Your task to perform on an android device: How much does a 3 bedroom apartment rent for in Washington DC? Image 0: 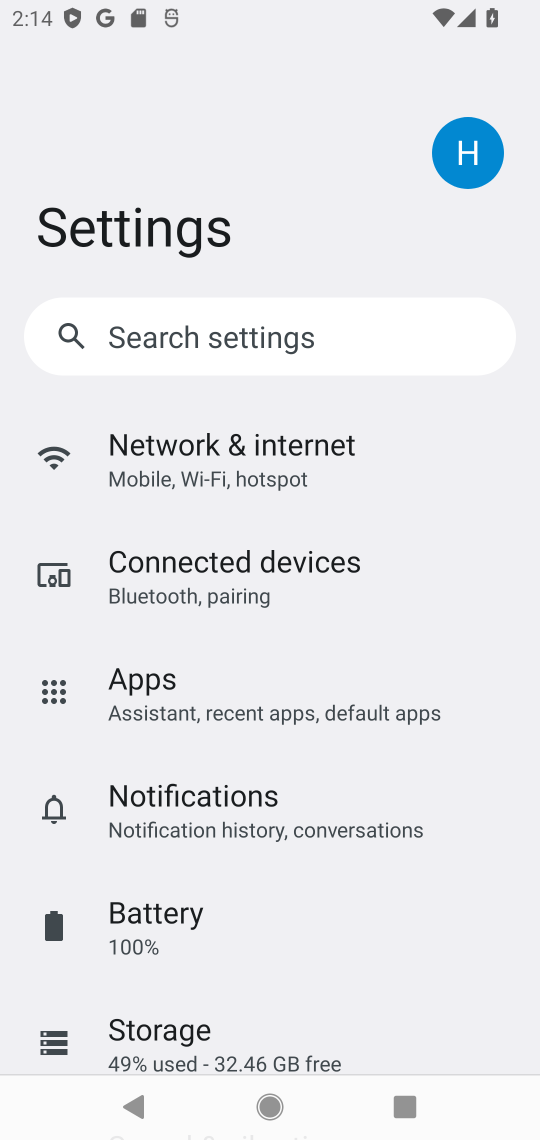
Step 0: press home button
Your task to perform on an android device: How much does a 3 bedroom apartment rent for in Washington DC? Image 1: 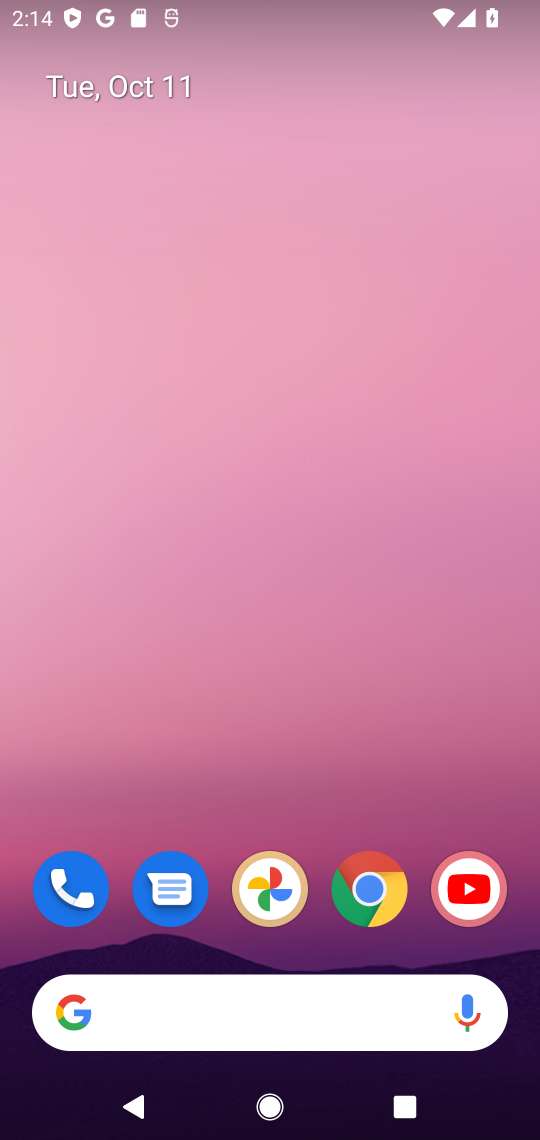
Step 1: drag from (232, 833) to (205, 136)
Your task to perform on an android device: How much does a 3 bedroom apartment rent for in Washington DC? Image 2: 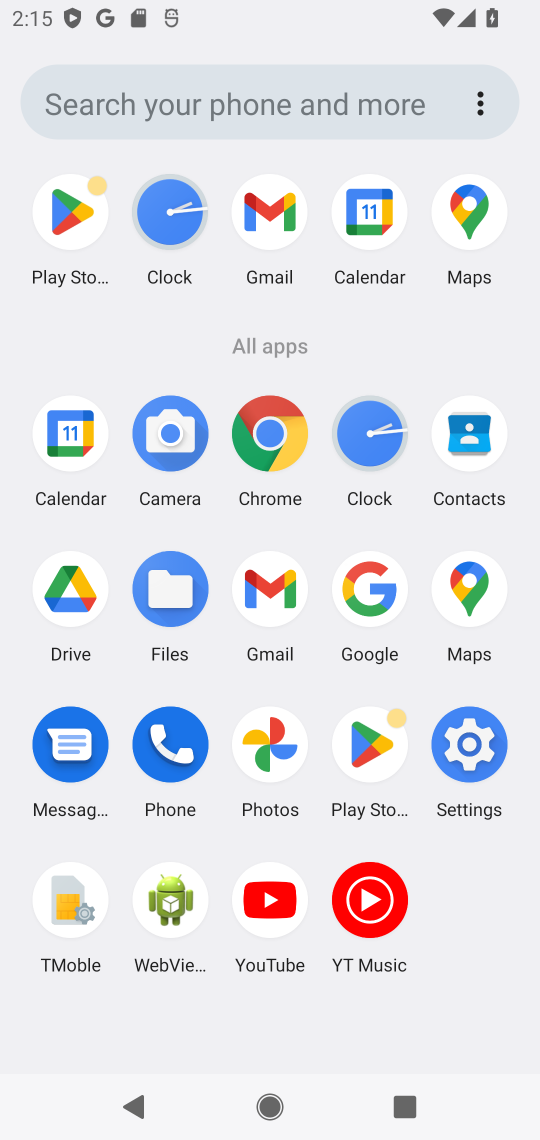
Step 2: click (360, 592)
Your task to perform on an android device: How much does a 3 bedroom apartment rent for in Washington DC? Image 3: 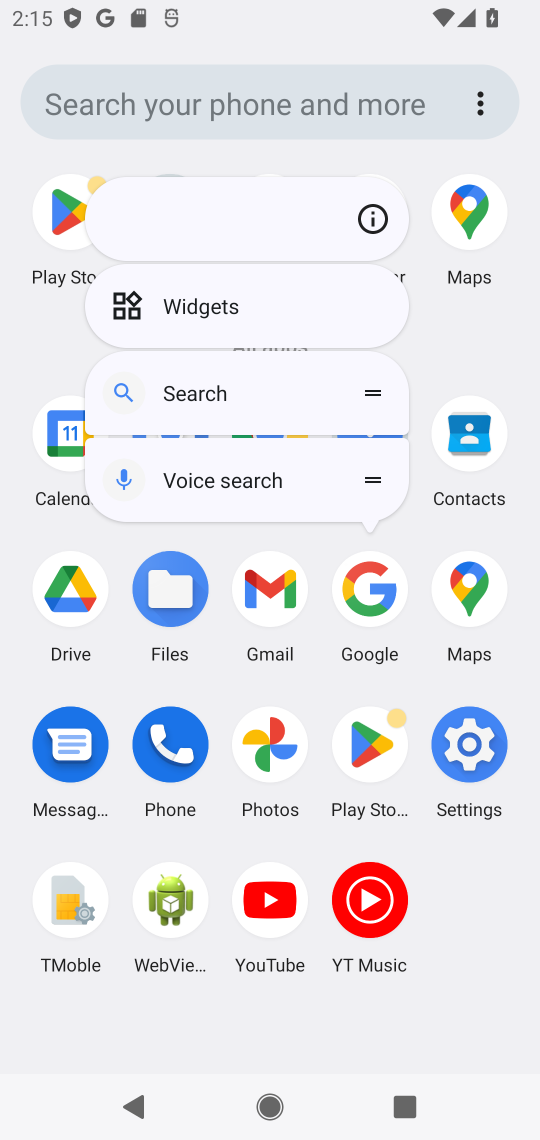
Step 3: click (356, 582)
Your task to perform on an android device: How much does a 3 bedroom apartment rent for in Washington DC? Image 4: 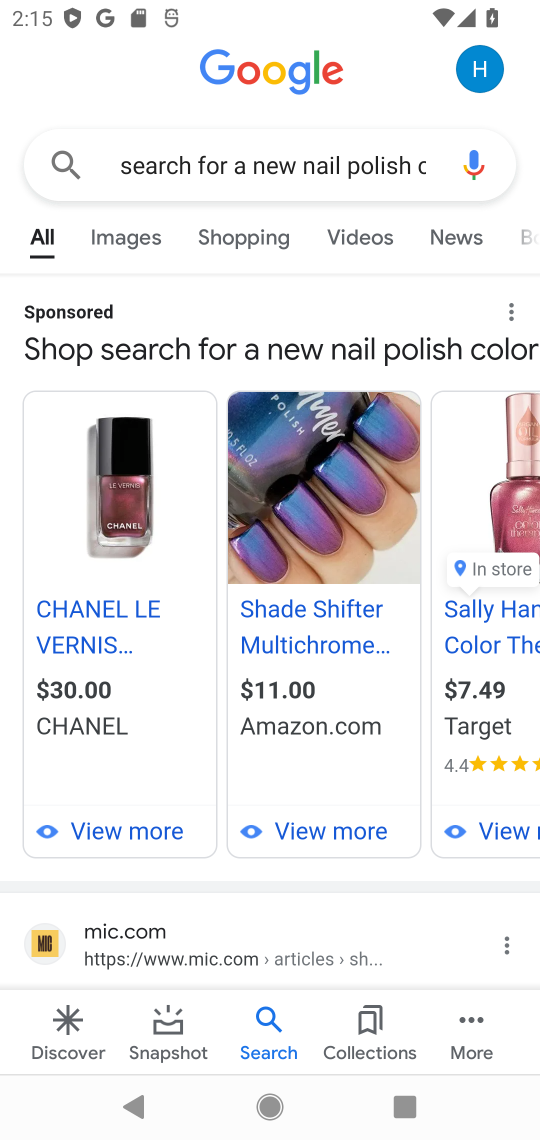
Step 4: click (224, 160)
Your task to perform on an android device: How much does a 3 bedroom apartment rent for in Washington DC? Image 5: 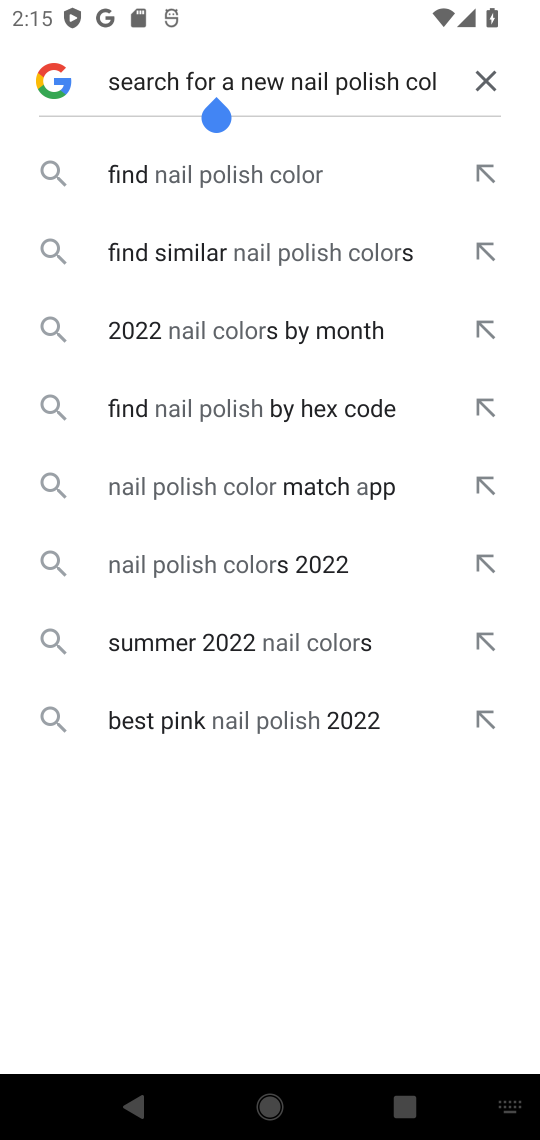
Step 5: click (482, 81)
Your task to perform on an android device: How much does a 3 bedroom apartment rent for in Washington DC? Image 6: 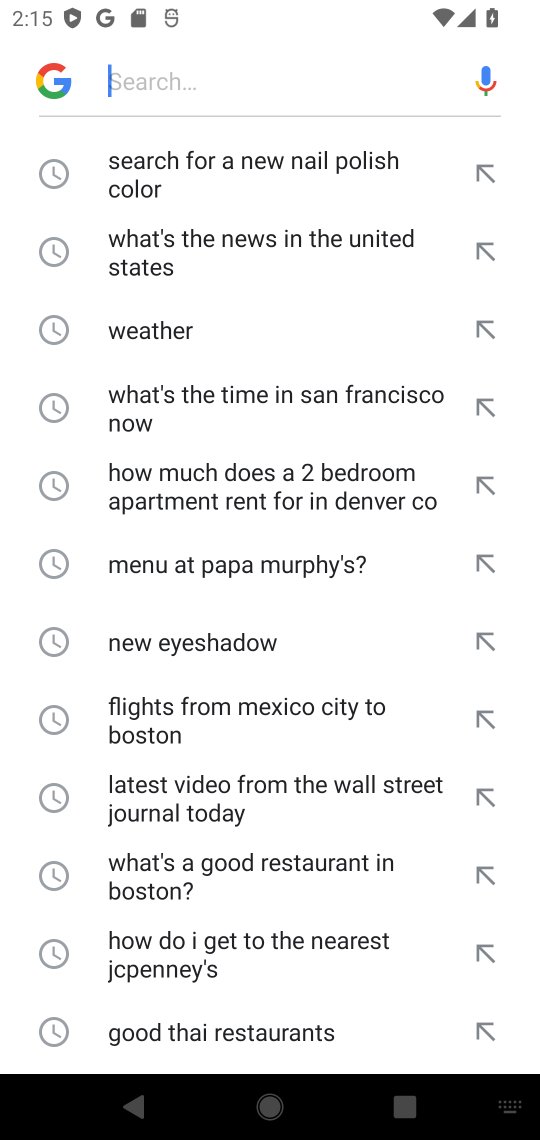
Step 6: click (189, 54)
Your task to perform on an android device: How much does a 3 bedroom apartment rent for in Washington DC? Image 7: 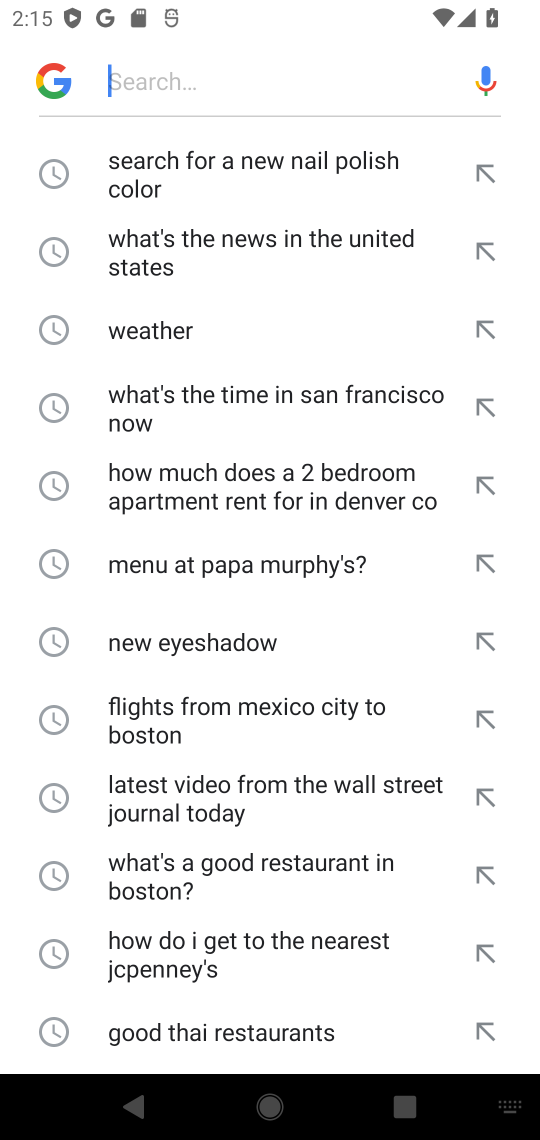
Step 7: type "How much does a 3 bedroom apartment rent for in Washington DC? "
Your task to perform on an android device: How much does a 3 bedroom apartment rent for in Washington DC? Image 8: 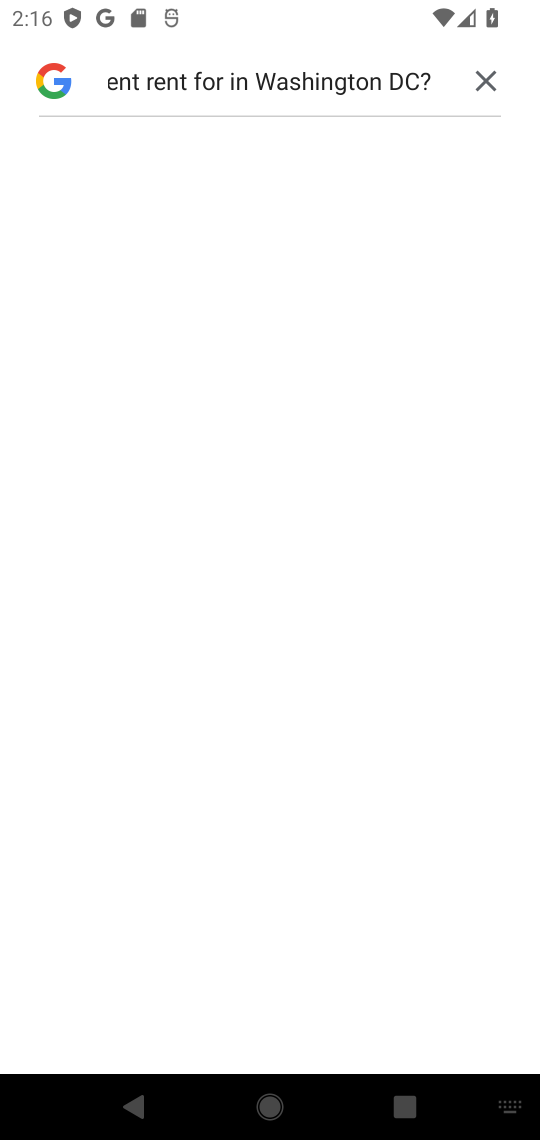
Step 8: click (489, 76)
Your task to perform on an android device: How much does a 3 bedroom apartment rent for in Washington DC? Image 9: 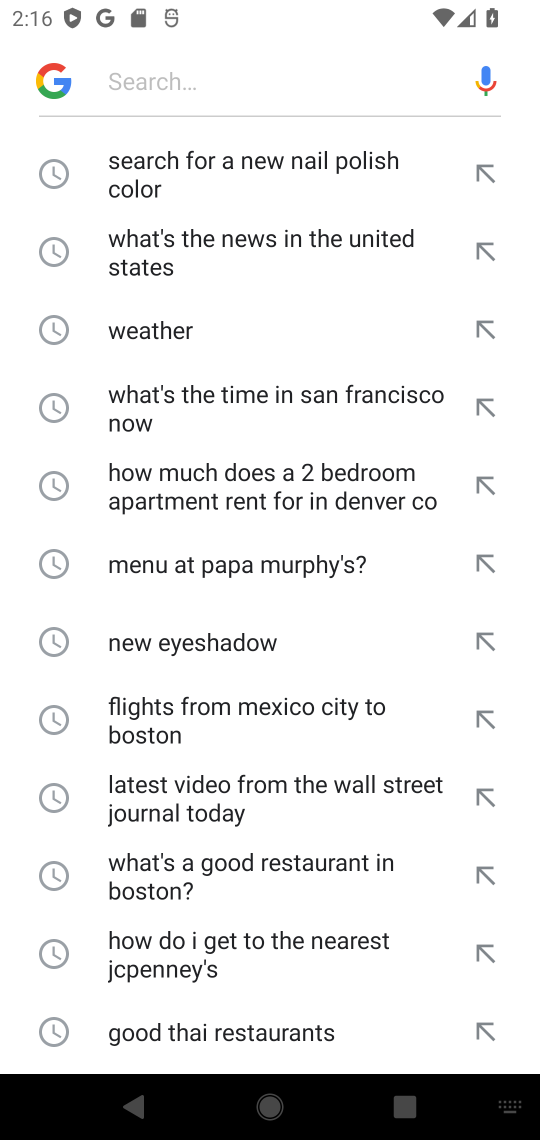
Step 9: click (256, 80)
Your task to perform on an android device: How much does a 3 bedroom apartment rent for in Washington DC? Image 10: 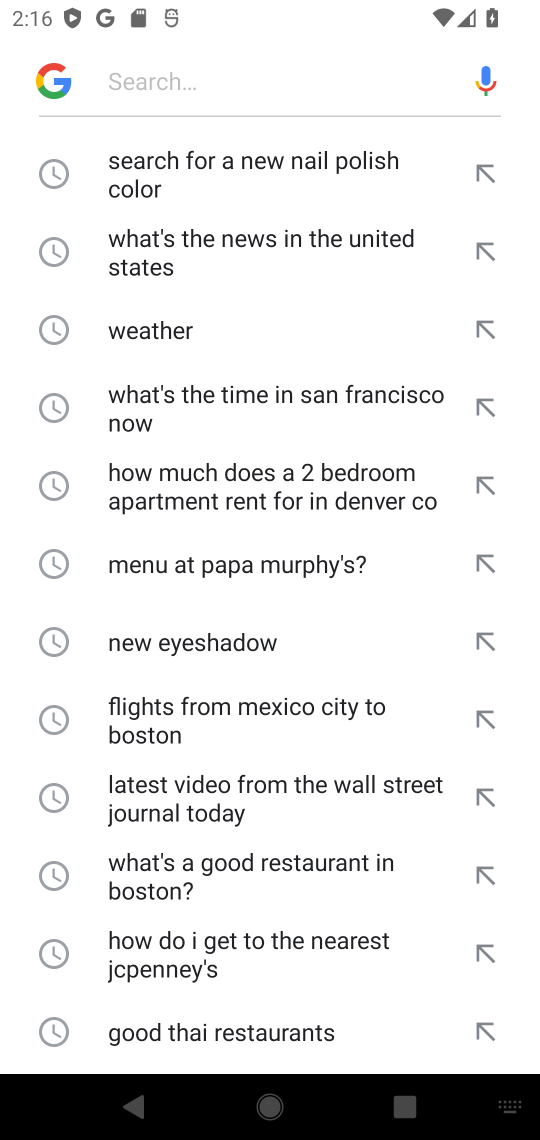
Step 10: type "How much does a 3 bedroom apartment rent for in Washington DC "
Your task to perform on an android device: How much does a 3 bedroom apartment rent for in Washington DC? Image 11: 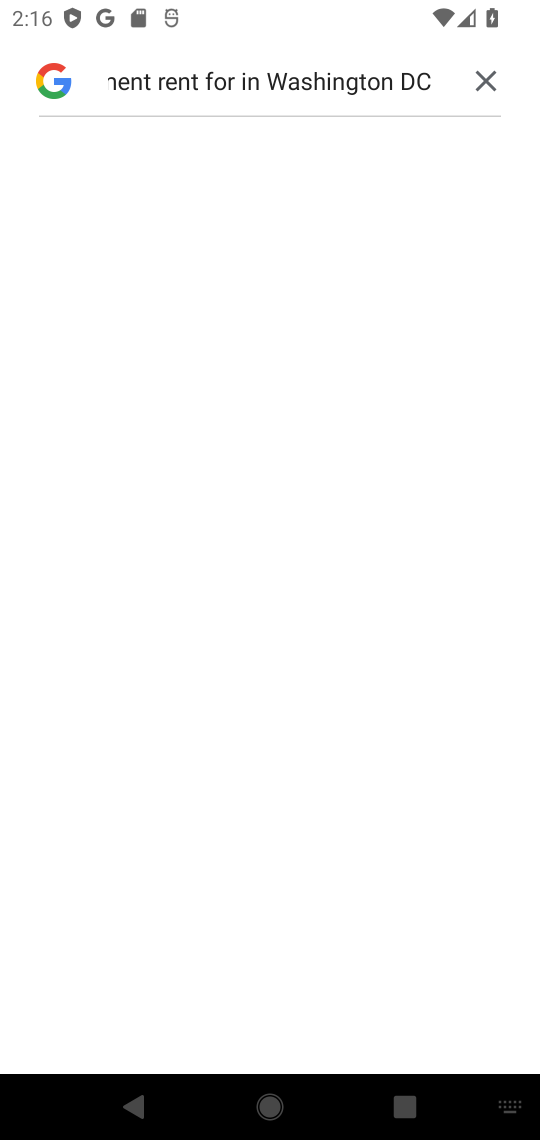
Step 11: click (276, 72)
Your task to perform on an android device: How much does a 3 bedroom apartment rent for in Washington DC? Image 12: 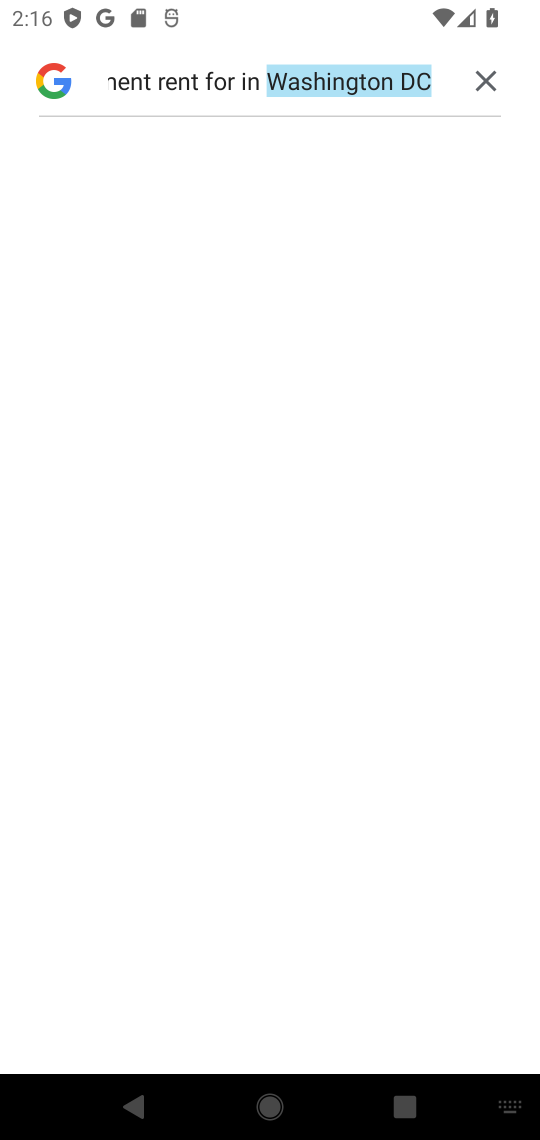
Step 12: click (278, 222)
Your task to perform on an android device: How much does a 3 bedroom apartment rent for in Washington DC? Image 13: 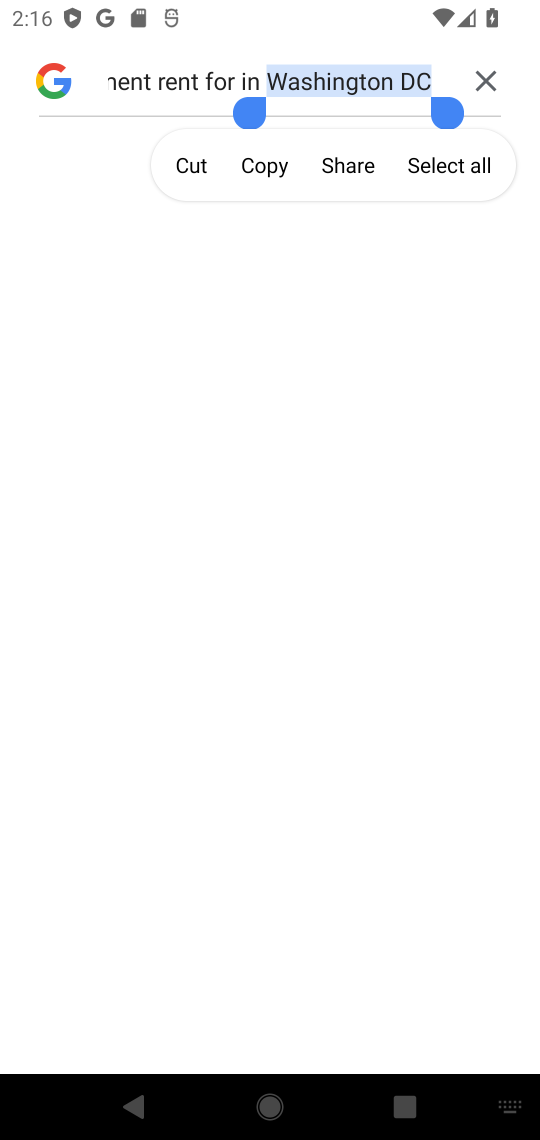
Step 13: click (278, 222)
Your task to perform on an android device: How much does a 3 bedroom apartment rent for in Washington DC? Image 14: 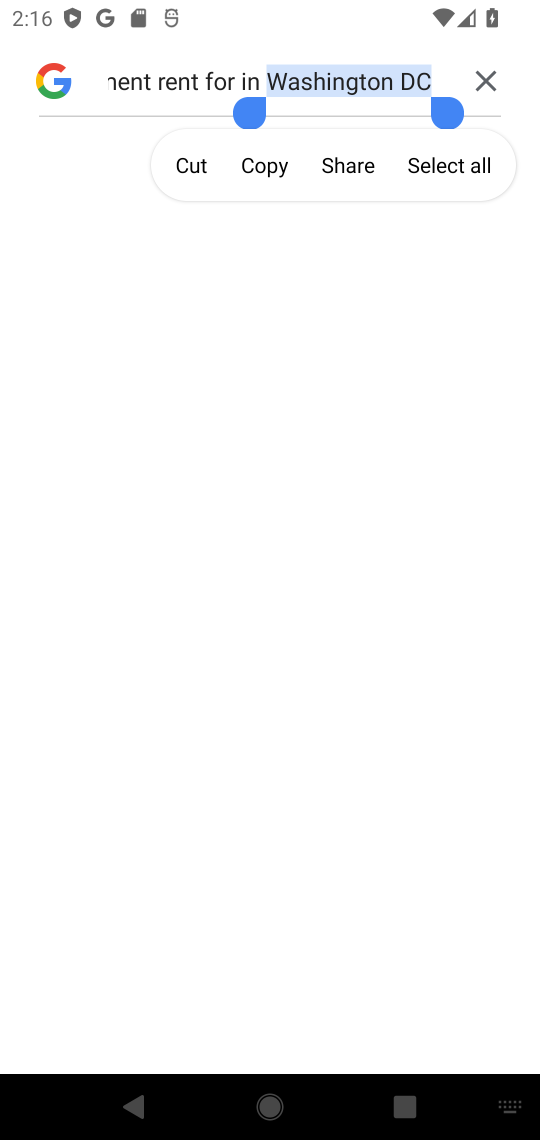
Step 14: click (310, 264)
Your task to perform on an android device: How much does a 3 bedroom apartment rent for in Washington DC? Image 15: 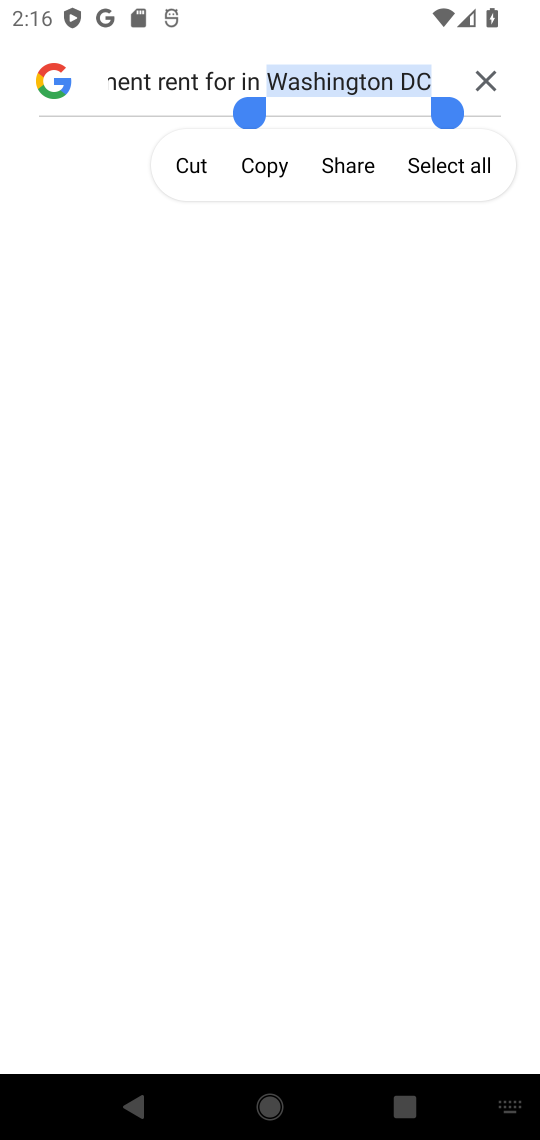
Step 15: click (322, 243)
Your task to perform on an android device: How much does a 3 bedroom apartment rent for in Washington DC? Image 16: 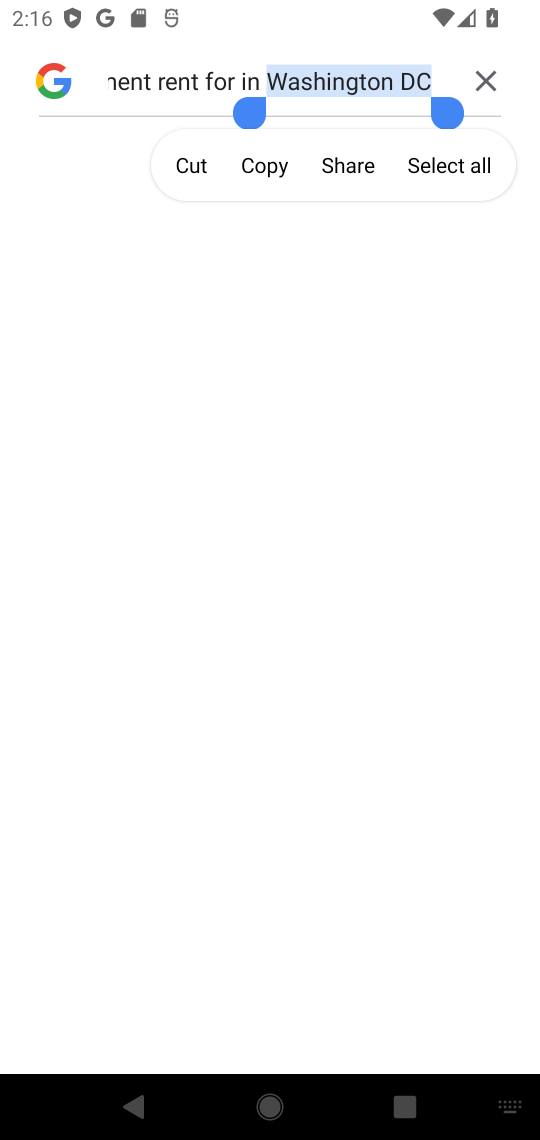
Step 16: click (214, 239)
Your task to perform on an android device: How much does a 3 bedroom apartment rent for in Washington DC? Image 17: 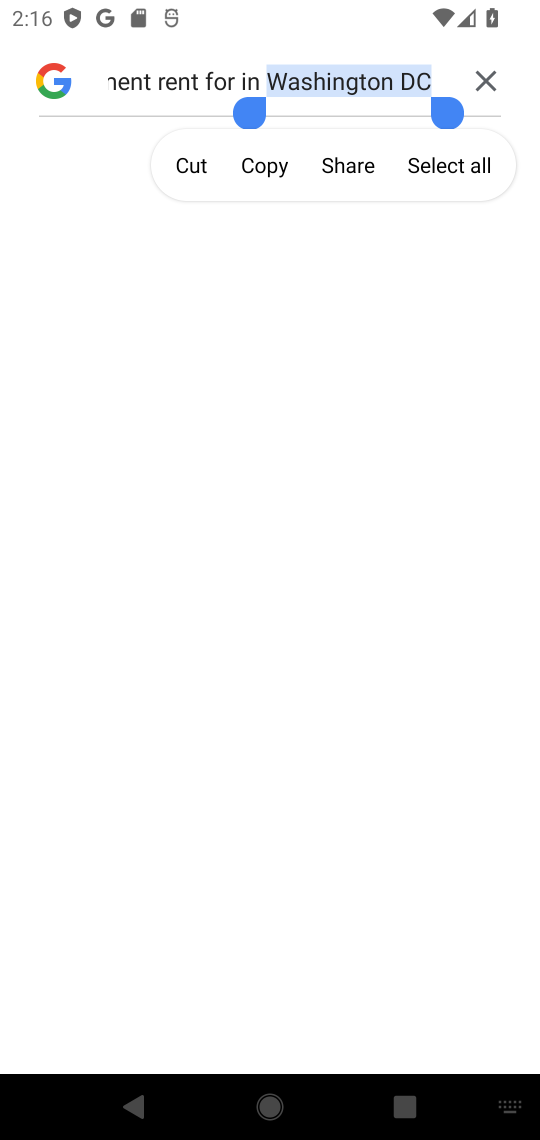
Step 17: click (214, 239)
Your task to perform on an android device: How much does a 3 bedroom apartment rent for in Washington DC? Image 18: 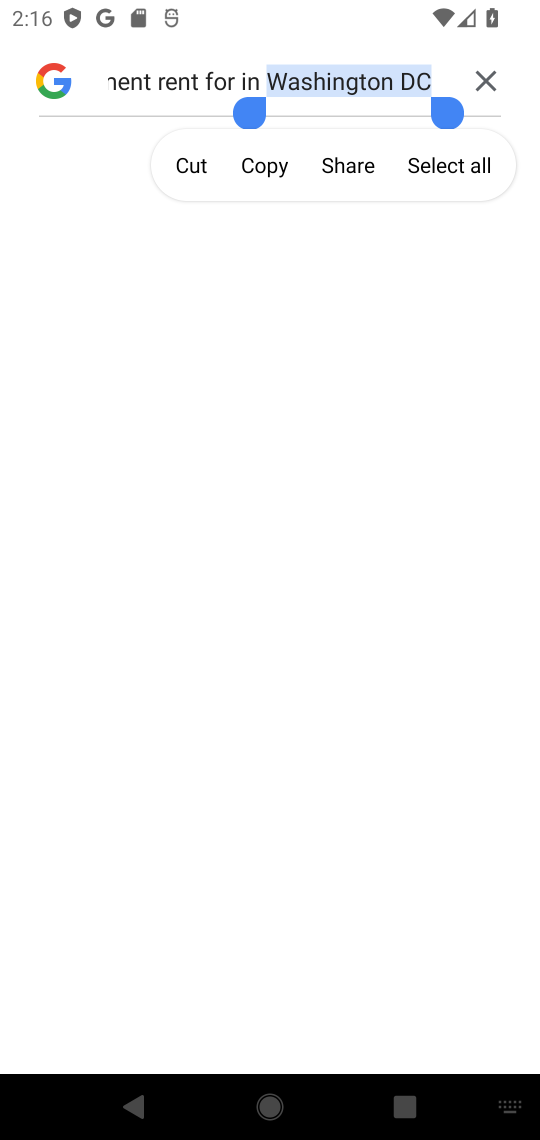
Step 18: click (204, 191)
Your task to perform on an android device: How much does a 3 bedroom apartment rent for in Washington DC? Image 19: 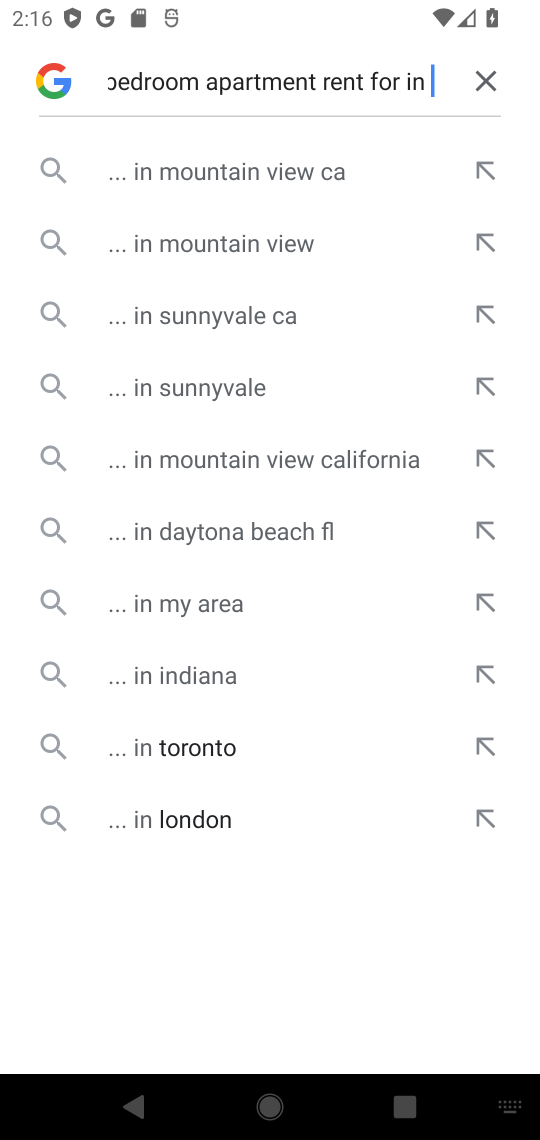
Step 19: click (312, 179)
Your task to perform on an android device: How much does a 3 bedroom apartment rent for in Washington DC? Image 20: 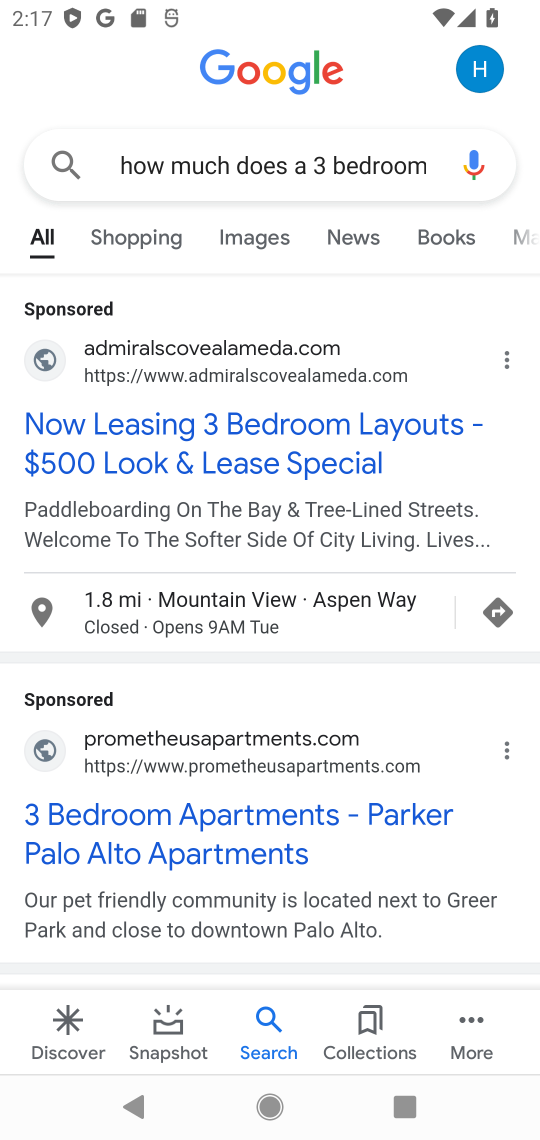
Step 20: click (153, 425)
Your task to perform on an android device: How much does a 3 bedroom apartment rent for in Washington DC? Image 21: 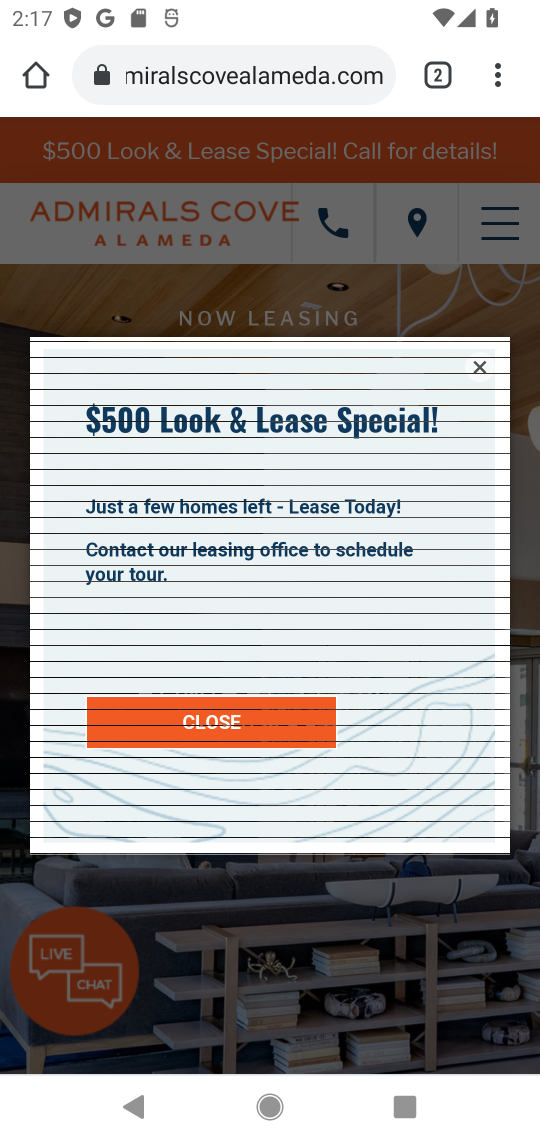
Step 21: click (479, 363)
Your task to perform on an android device: How much does a 3 bedroom apartment rent for in Washington DC? Image 22: 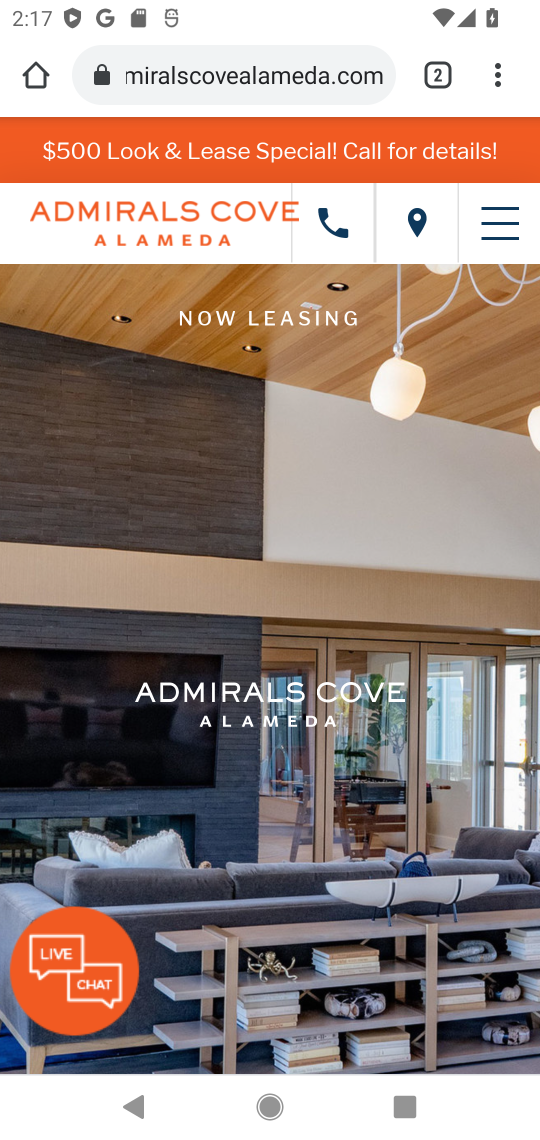
Step 22: task complete